Your task to perform on an android device: Do I have any events tomorrow? Image 0: 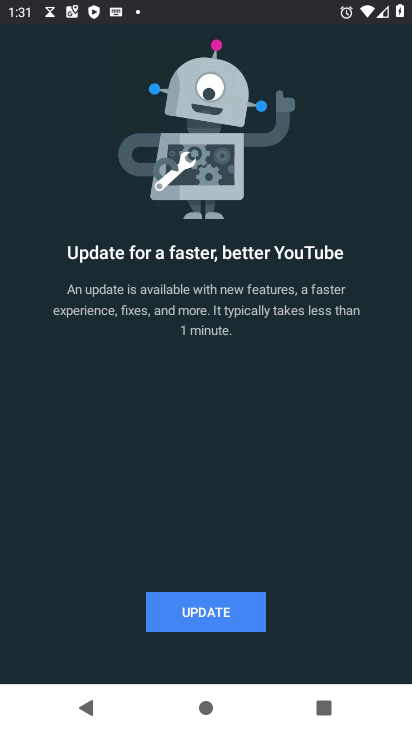
Step 0: press home button
Your task to perform on an android device: Do I have any events tomorrow? Image 1: 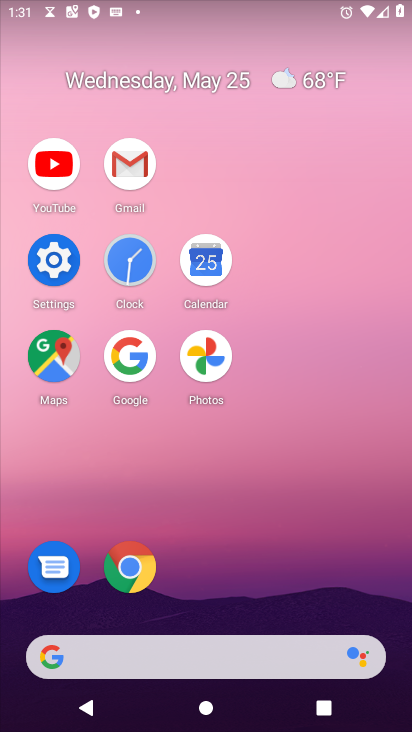
Step 1: click (227, 282)
Your task to perform on an android device: Do I have any events tomorrow? Image 2: 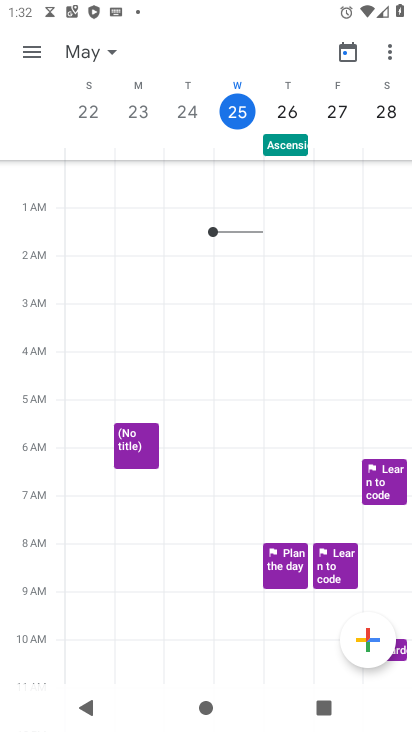
Step 2: click (282, 112)
Your task to perform on an android device: Do I have any events tomorrow? Image 3: 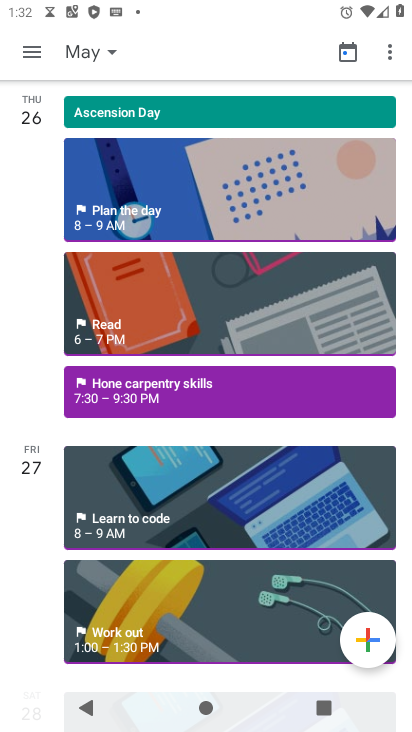
Step 3: task complete